Your task to perform on an android device: Go to Maps Image 0: 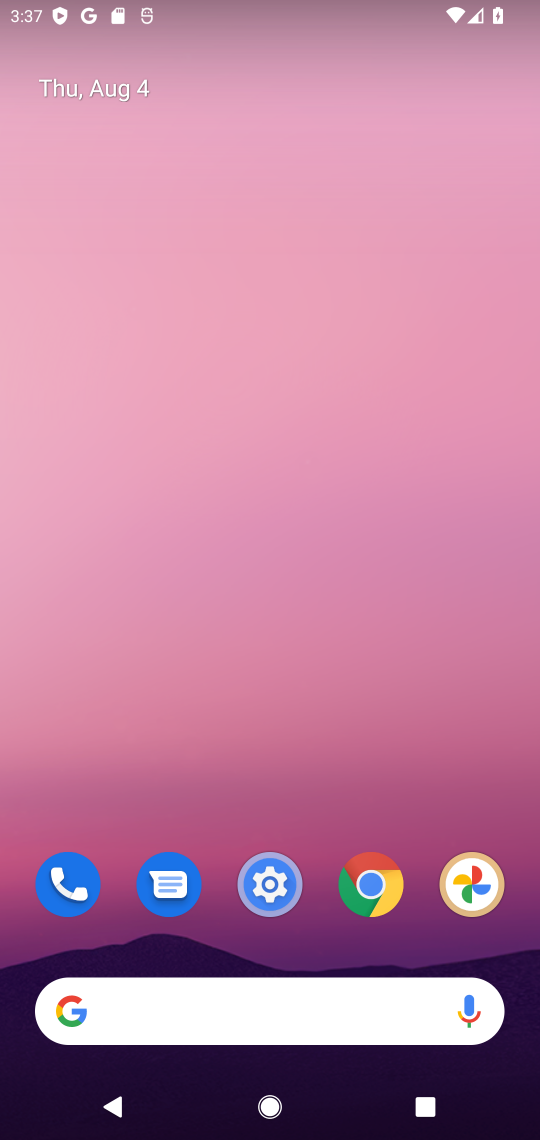
Step 0: drag from (184, 939) to (306, 391)
Your task to perform on an android device: Go to Maps Image 1: 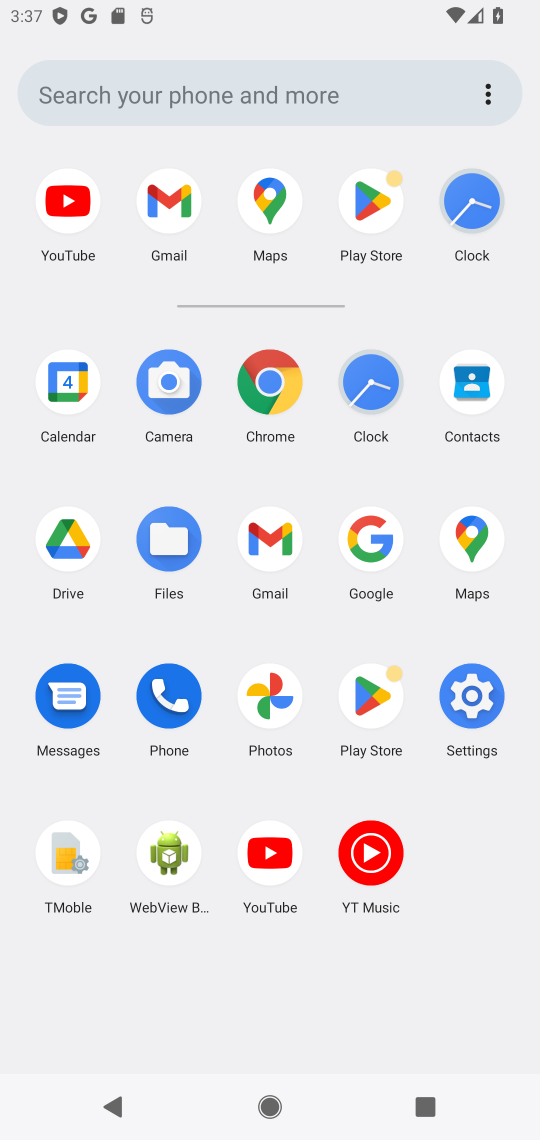
Step 1: click (469, 545)
Your task to perform on an android device: Go to Maps Image 2: 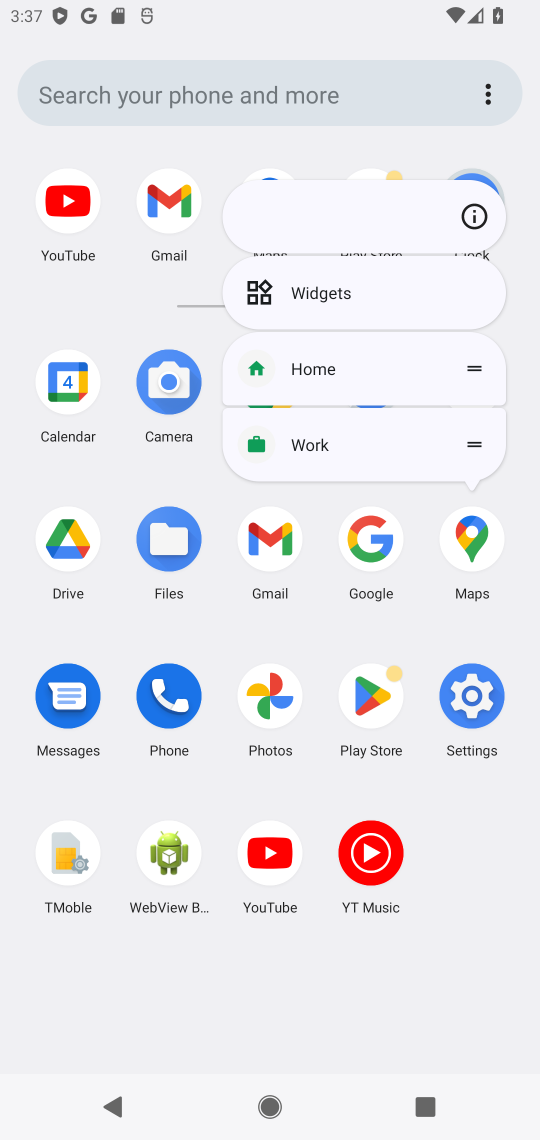
Step 2: click (455, 229)
Your task to perform on an android device: Go to Maps Image 3: 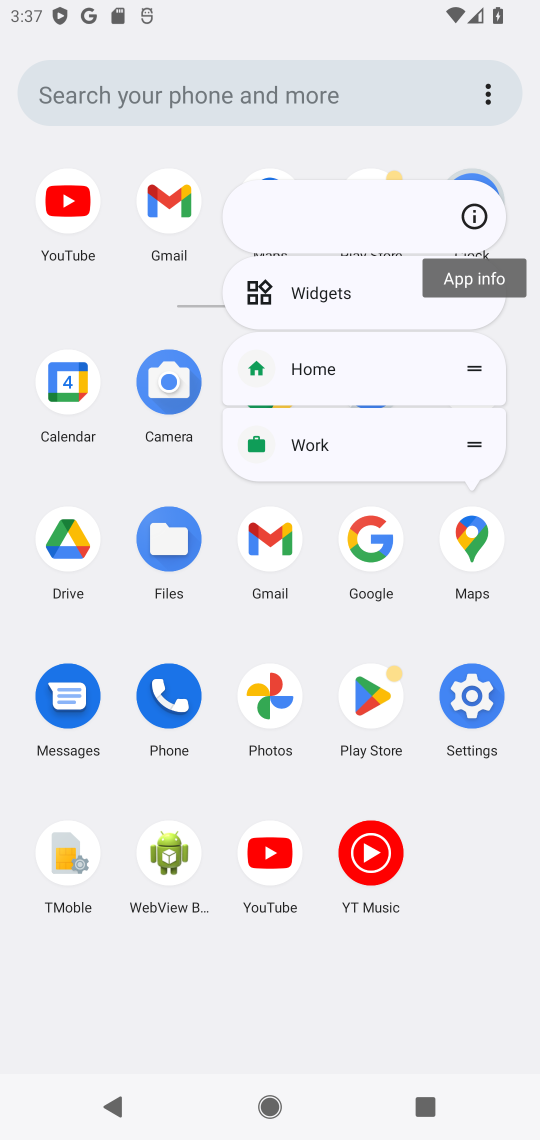
Step 3: click (476, 211)
Your task to perform on an android device: Go to Maps Image 4: 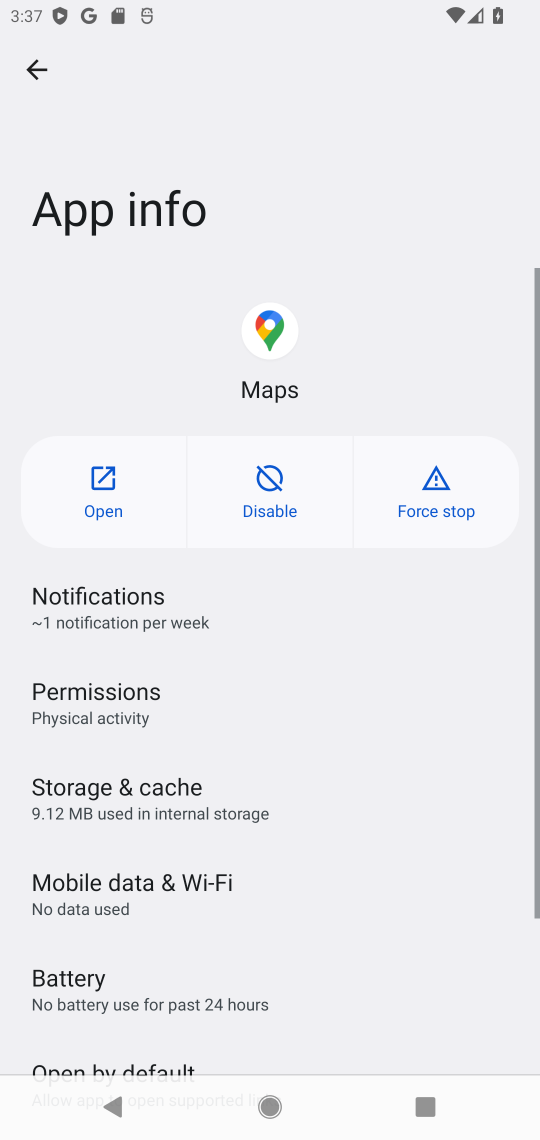
Step 4: click (93, 502)
Your task to perform on an android device: Go to Maps Image 5: 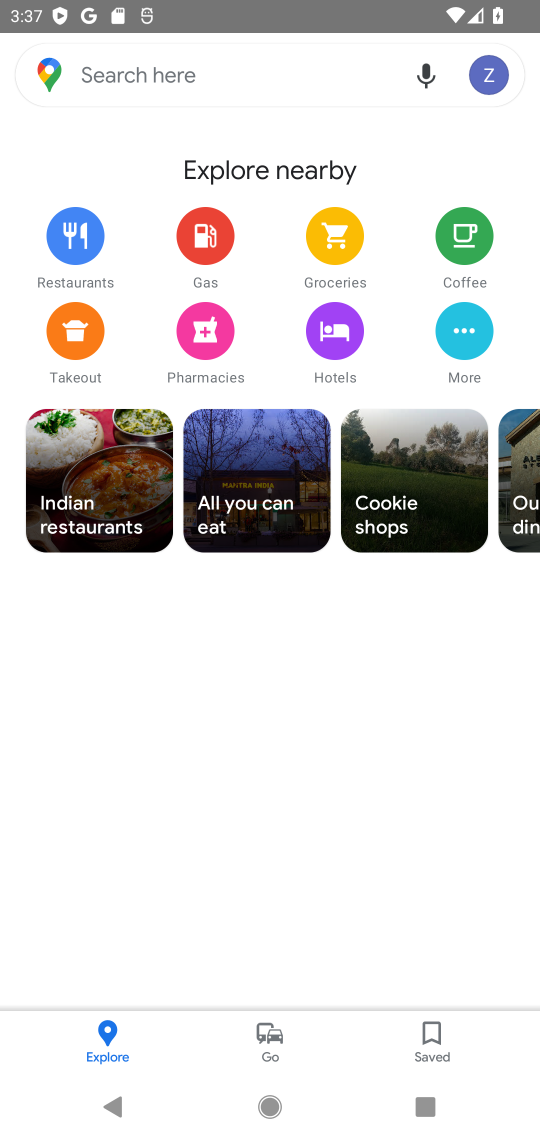
Step 5: task complete